Your task to perform on an android device: Set the phone to "Do not disturb". Image 0: 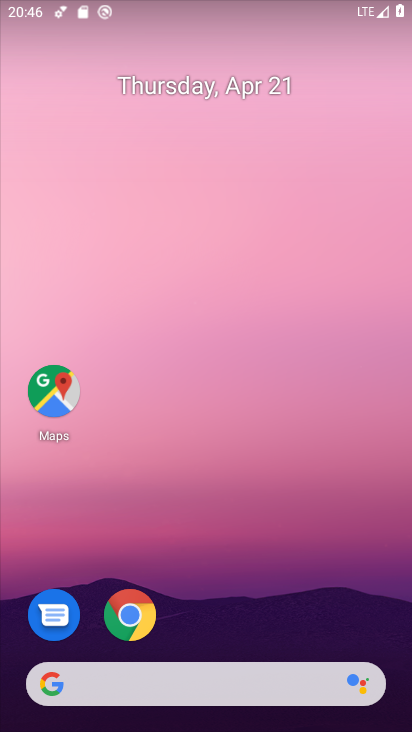
Step 0: drag from (218, 630) to (283, 182)
Your task to perform on an android device: Set the phone to "Do not disturb". Image 1: 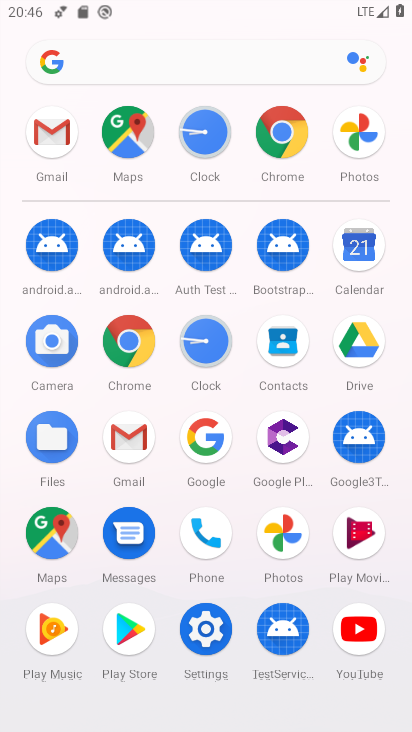
Step 1: click (200, 629)
Your task to perform on an android device: Set the phone to "Do not disturb". Image 2: 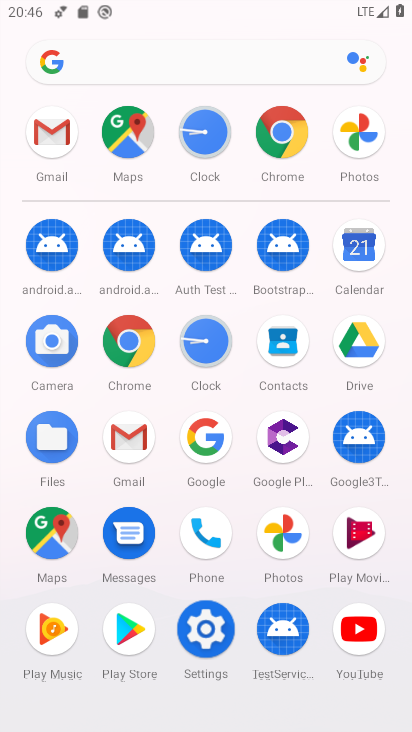
Step 2: click (200, 629)
Your task to perform on an android device: Set the phone to "Do not disturb". Image 3: 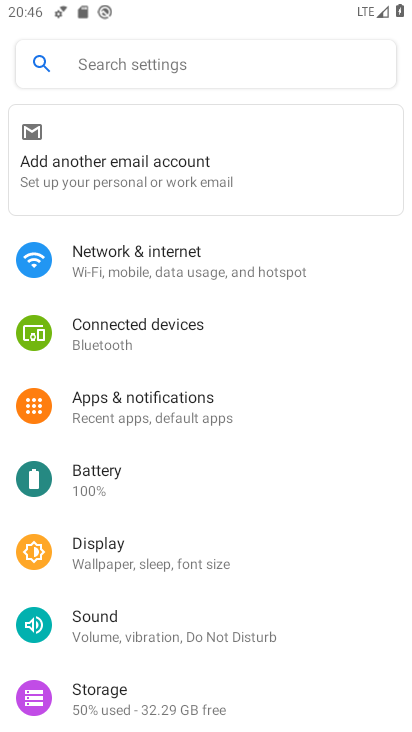
Step 3: click (170, 62)
Your task to perform on an android device: Set the phone to "Do not disturb". Image 4: 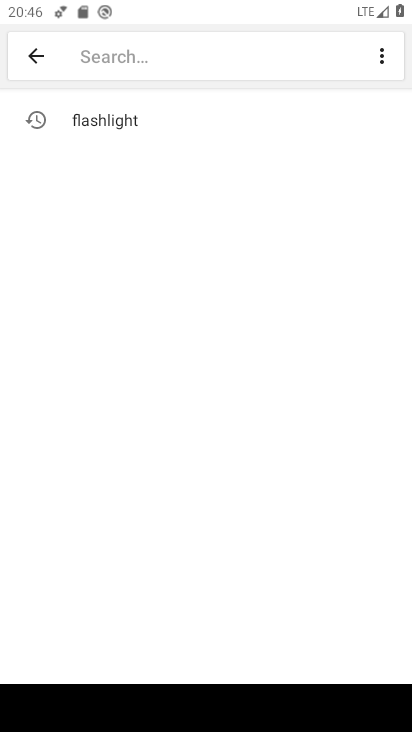
Step 4: click (35, 53)
Your task to perform on an android device: Set the phone to "Do not disturb". Image 5: 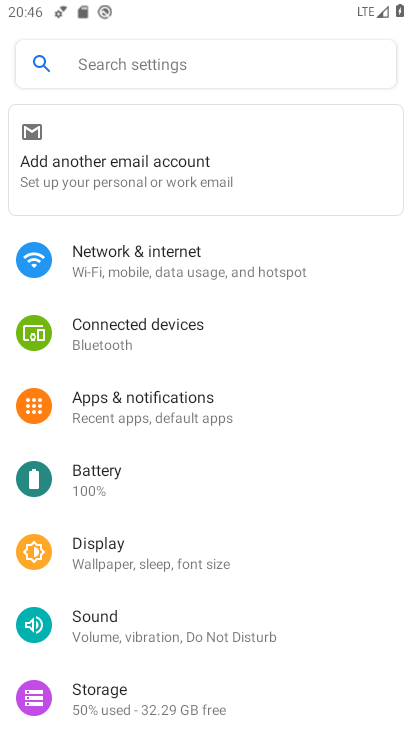
Step 5: click (141, 415)
Your task to perform on an android device: Set the phone to "Do not disturb". Image 6: 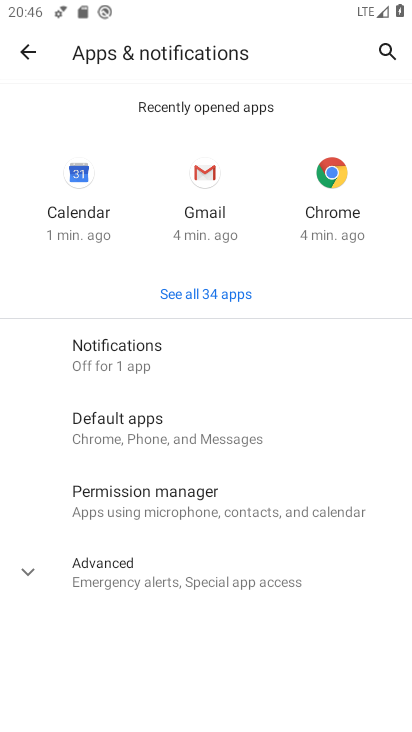
Step 6: click (198, 351)
Your task to perform on an android device: Set the phone to "Do not disturb". Image 7: 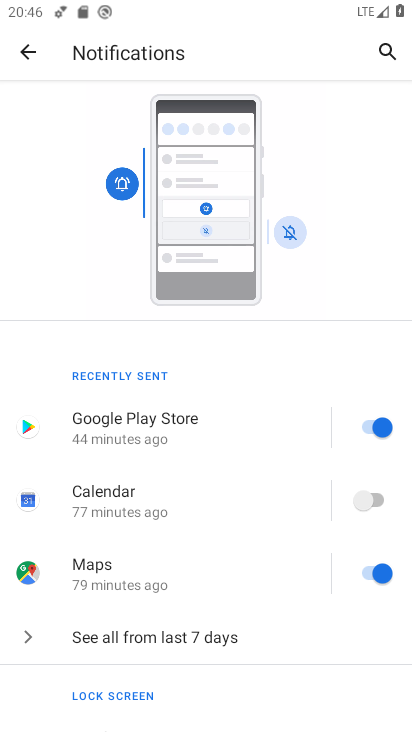
Step 7: drag from (274, 544) to (313, 291)
Your task to perform on an android device: Set the phone to "Do not disturb". Image 8: 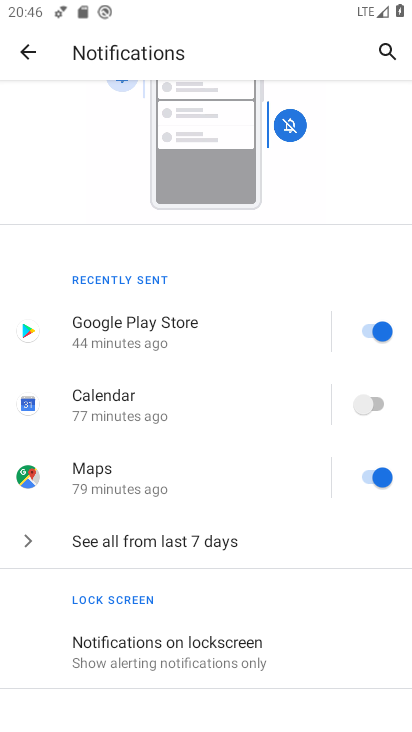
Step 8: drag from (161, 594) to (240, 336)
Your task to perform on an android device: Set the phone to "Do not disturb". Image 9: 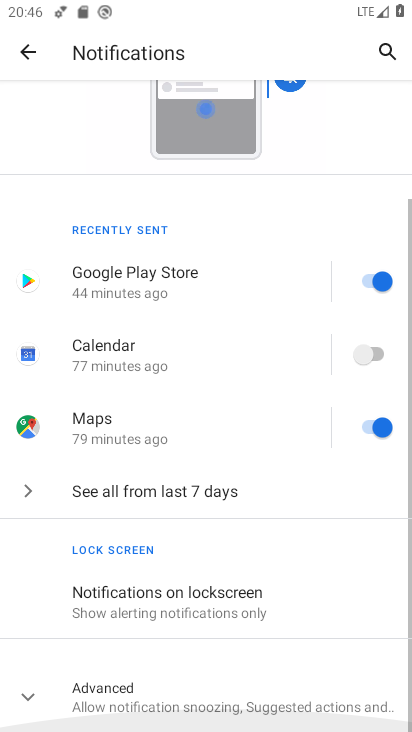
Step 9: drag from (206, 663) to (266, 382)
Your task to perform on an android device: Set the phone to "Do not disturb". Image 10: 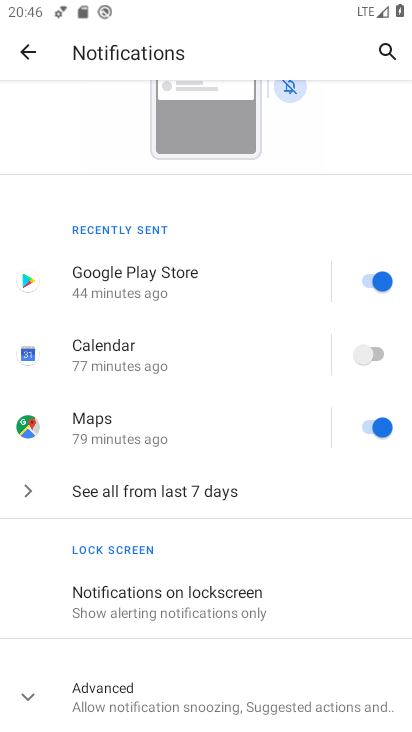
Step 10: click (175, 689)
Your task to perform on an android device: Set the phone to "Do not disturb". Image 11: 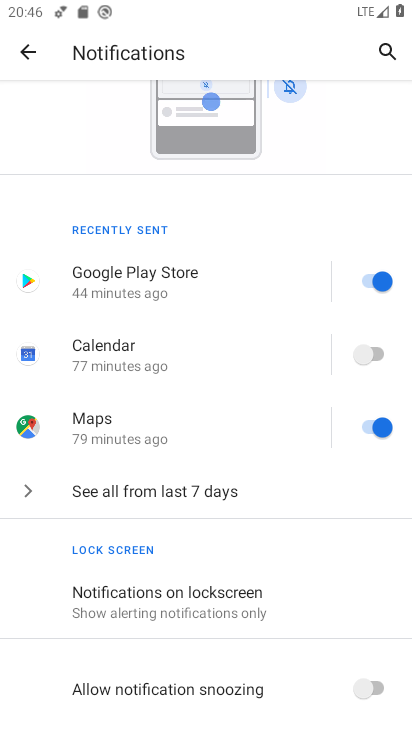
Step 11: drag from (211, 636) to (265, 365)
Your task to perform on an android device: Set the phone to "Do not disturb". Image 12: 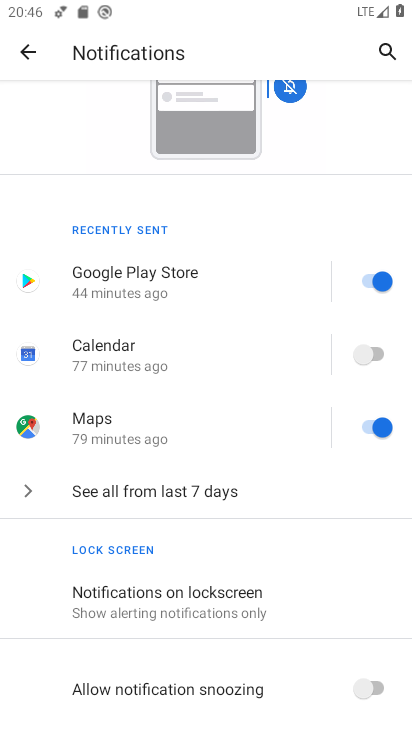
Step 12: drag from (190, 674) to (287, 294)
Your task to perform on an android device: Set the phone to "Do not disturb". Image 13: 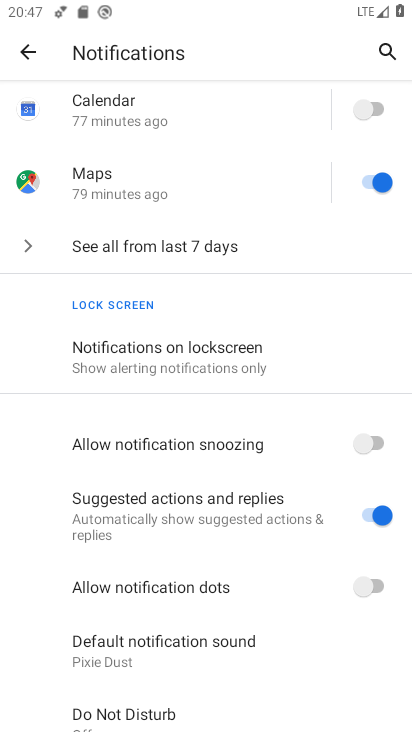
Step 13: drag from (282, 625) to (316, 197)
Your task to perform on an android device: Set the phone to "Do not disturb". Image 14: 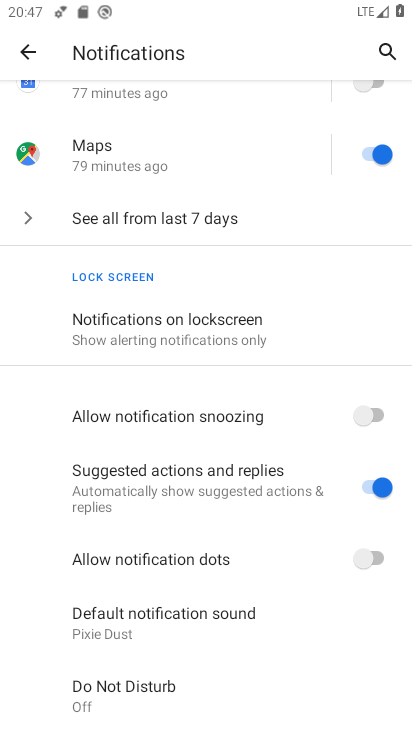
Step 14: click (171, 676)
Your task to perform on an android device: Set the phone to "Do not disturb". Image 15: 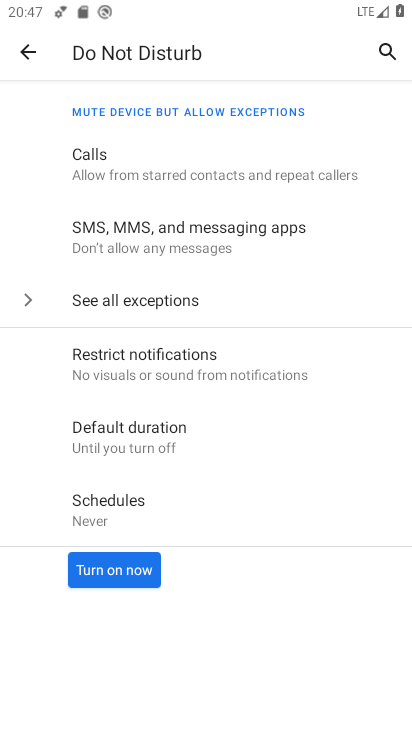
Step 15: drag from (227, 661) to (306, 101)
Your task to perform on an android device: Set the phone to "Do not disturb". Image 16: 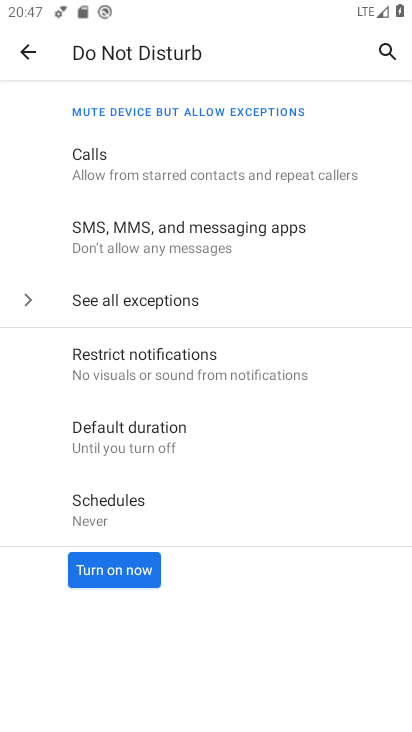
Step 16: click (86, 571)
Your task to perform on an android device: Set the phone to "Do not disturb". Image 17: 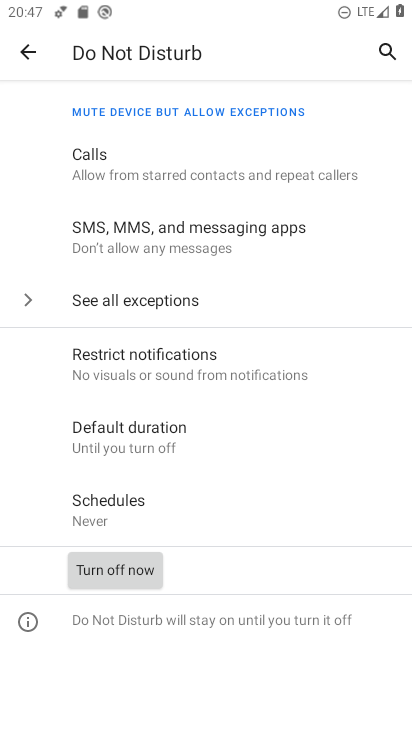
Step 17: task complete